Your task to perform on an android device: delete the emails in spam in the gmail app Image 0: 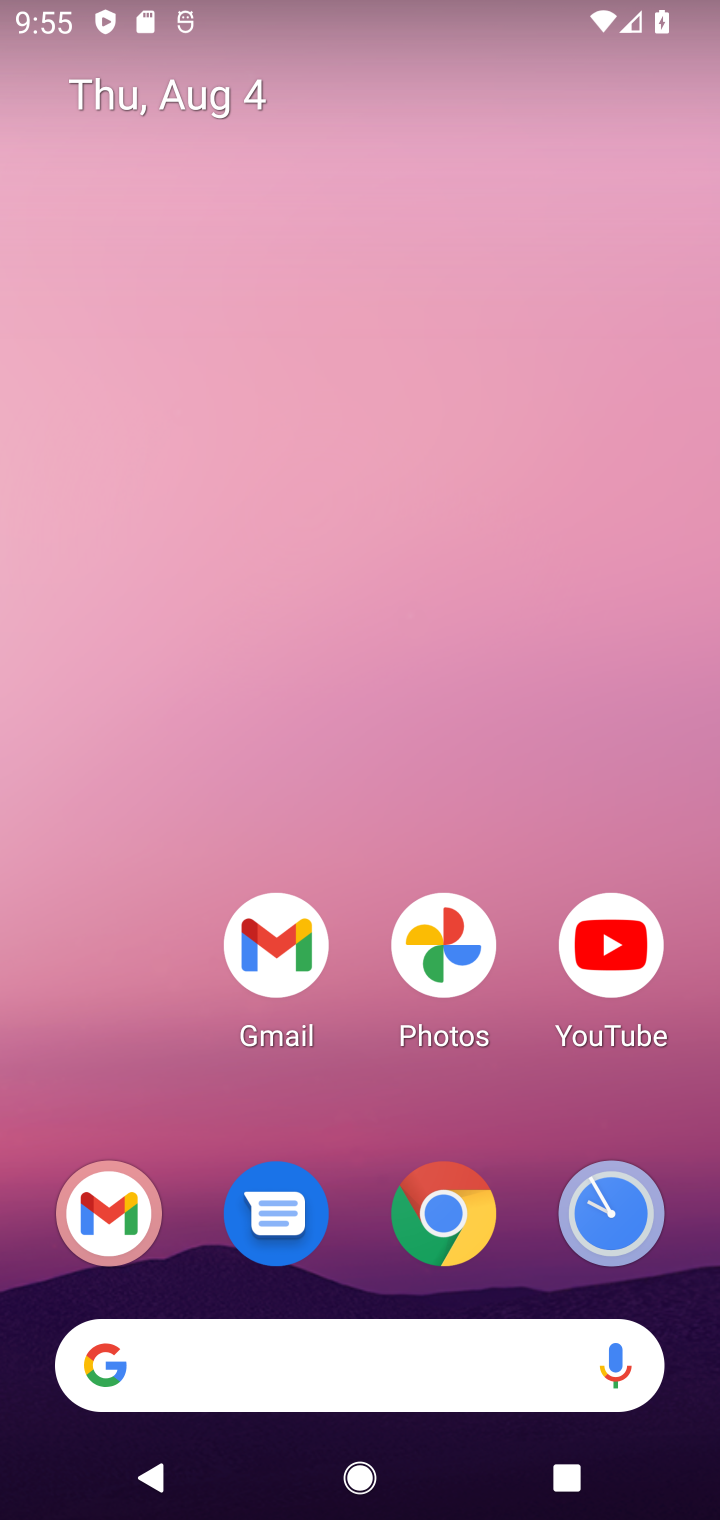
Step 0: click (272, 960)
Your task to perform on an android device: delete the emails in spam in the gmail app Image 1: 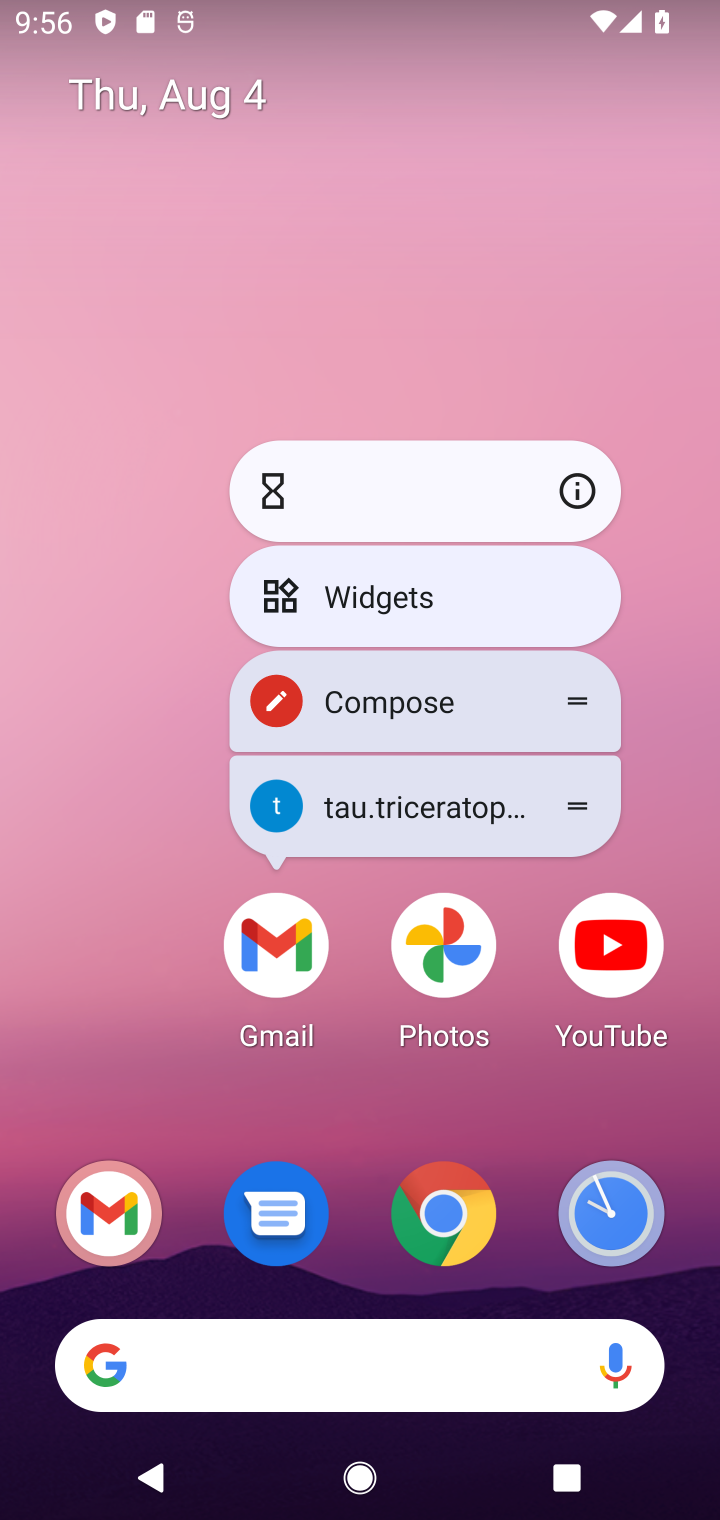
Step 1: click (271, 922)
Your task to perform on an android device: delete the emails in spam in the gmail app Image 2: 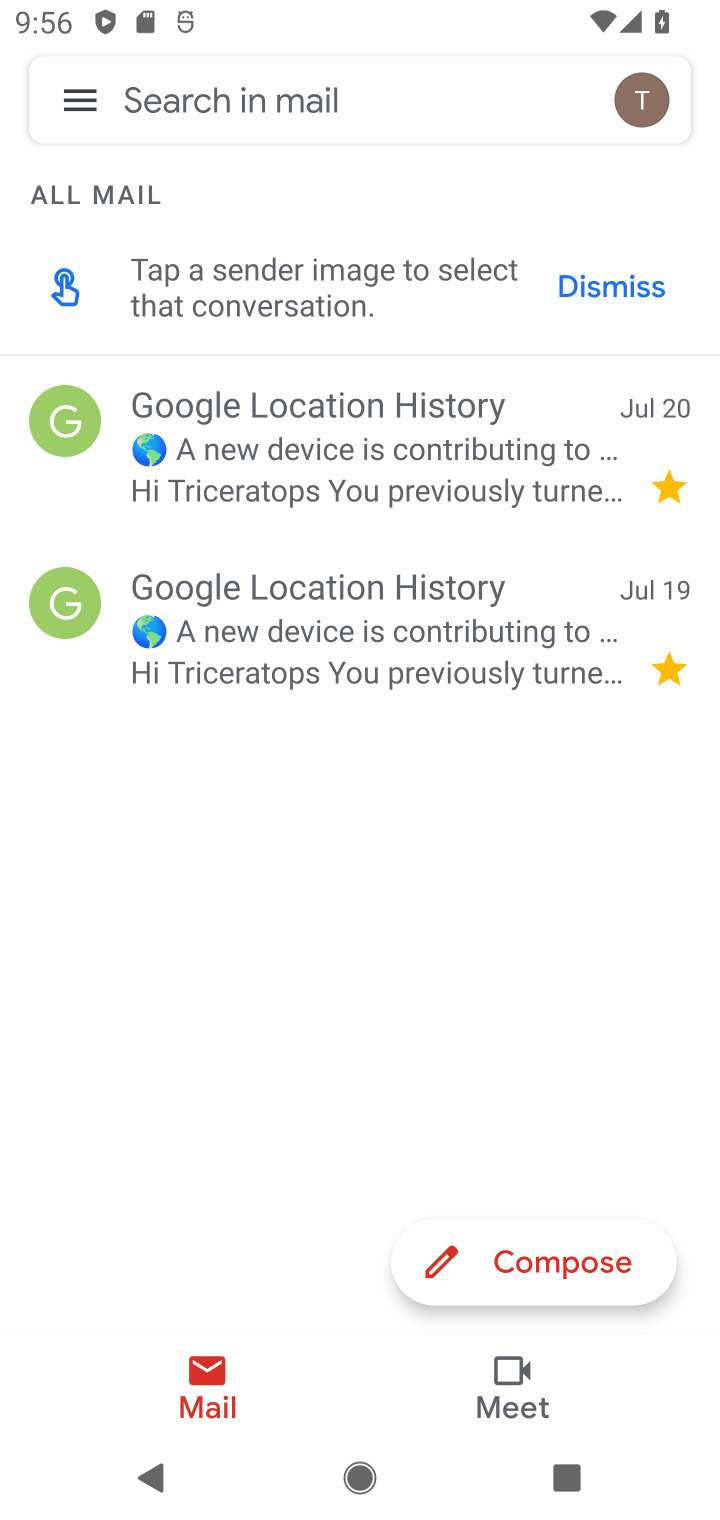
Step 2: click (82, 109)
Your task to perform on an android device: delete the emails in spam in the gmail app Image 3: 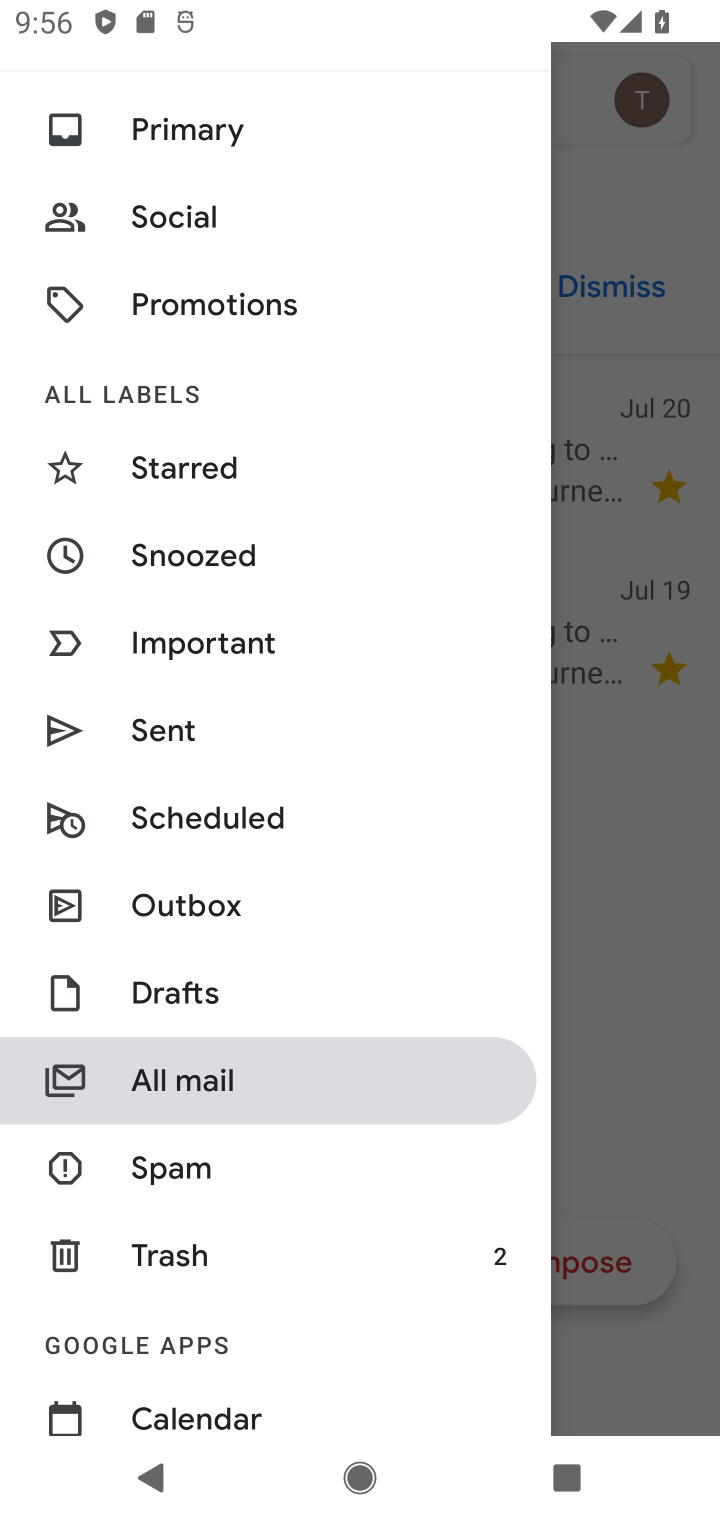
Step 3: click (200, 1172)
Your task to perform on an android device: delete the emails in spam in the gmail app Image 4: 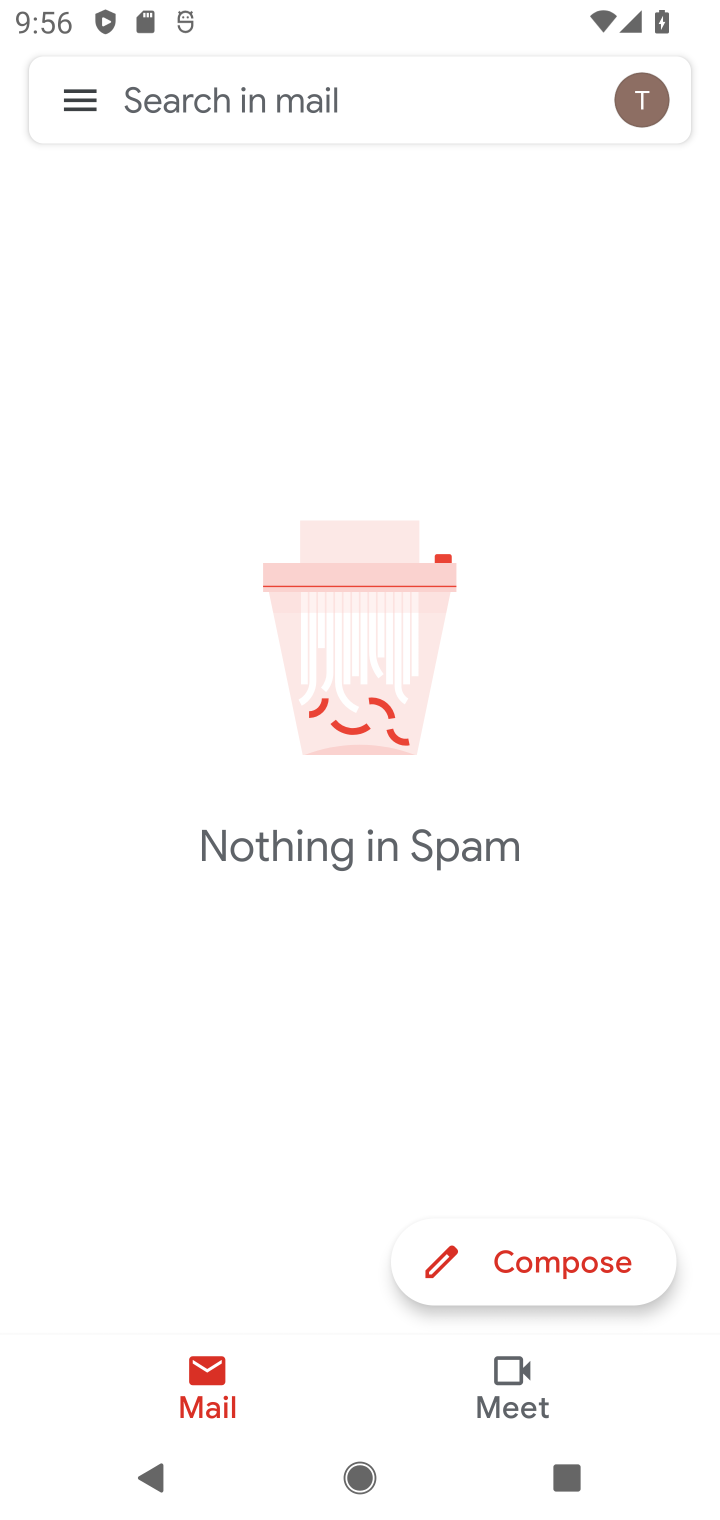
Step 4: task complete